Your task to perform on an android device: Open the map Image 0: 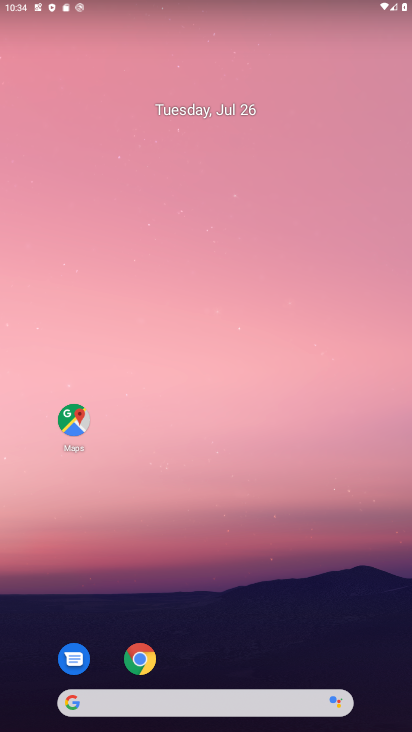
Step 0: drag from (251, 643) to (259, 0)
Your task to perform on an android device: Open the map Image 1: 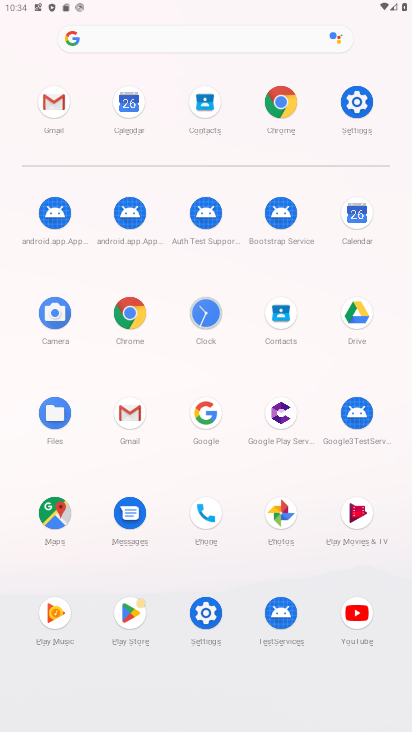
Step 1: click (53, 504)
Your task to perform on an android device: Open the map Image 2: 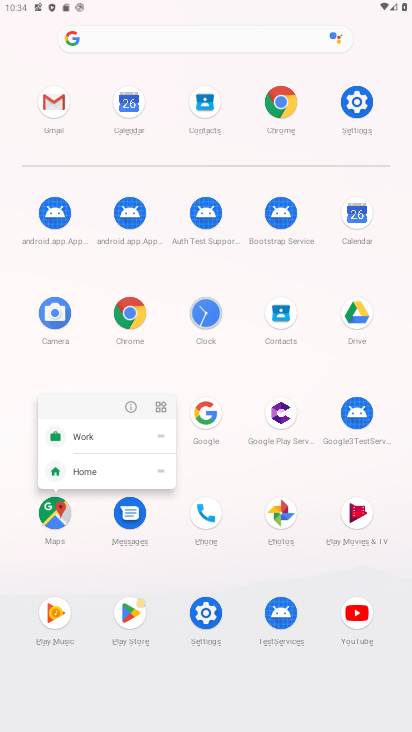
Step 2: click (63, 514)
Your task to perform on an android device: Open the map Image 3: 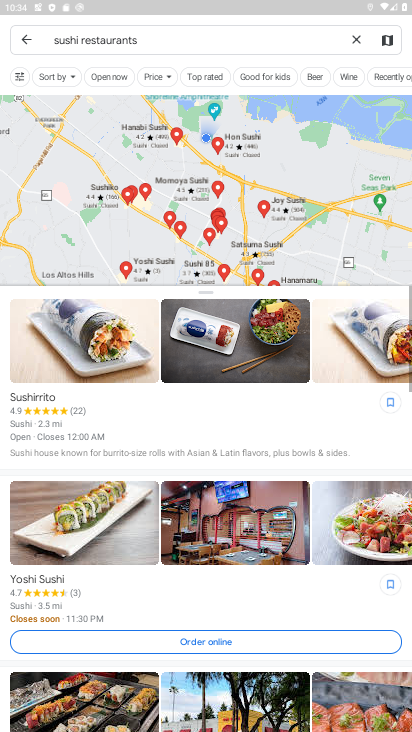
Step 3: click (25, 40)
Your task to perform on an android device: Open the map Image 4: 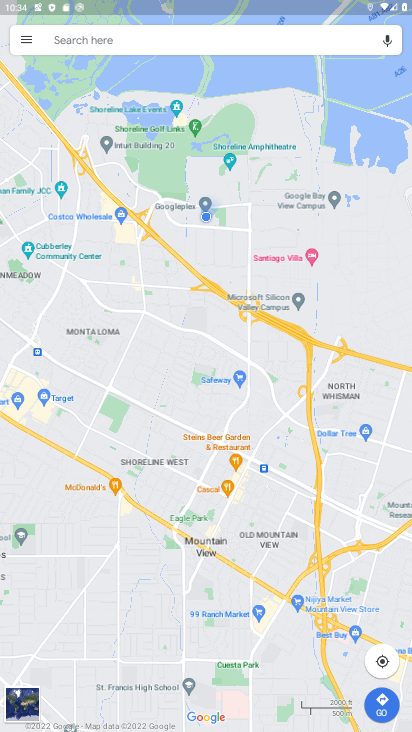
Step 4: click (25, 40)
Your task to perform on an android device: Open the map Image 5: 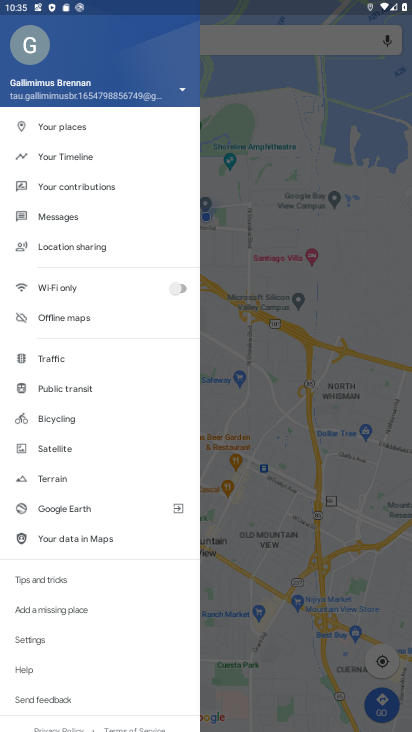
Step 5: click (299, 76)
Your task to perform on an android device: Open the map Image 6: 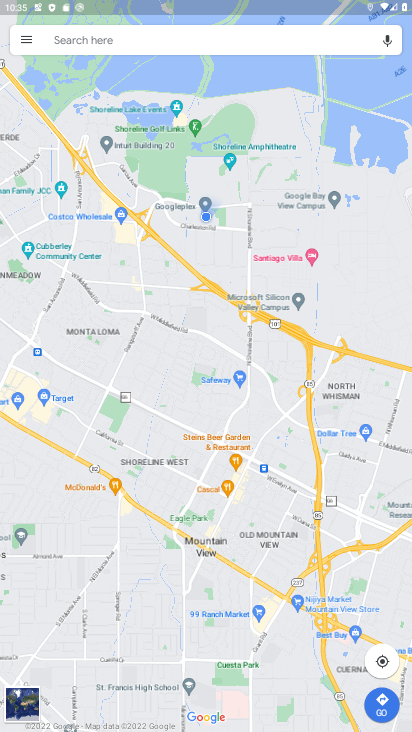
Step 6: task complete